Your task to perform on an android device: turn off location Image 0: 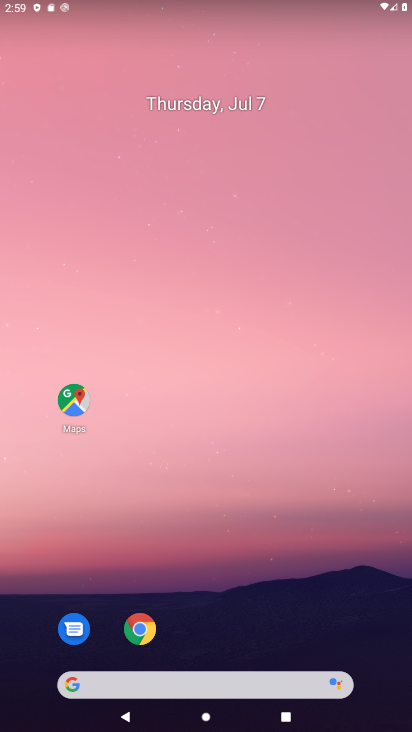
Step 0: drag from (302, 616) to (295, 300)
Your task to perform on an android device: turn off location Image 1: 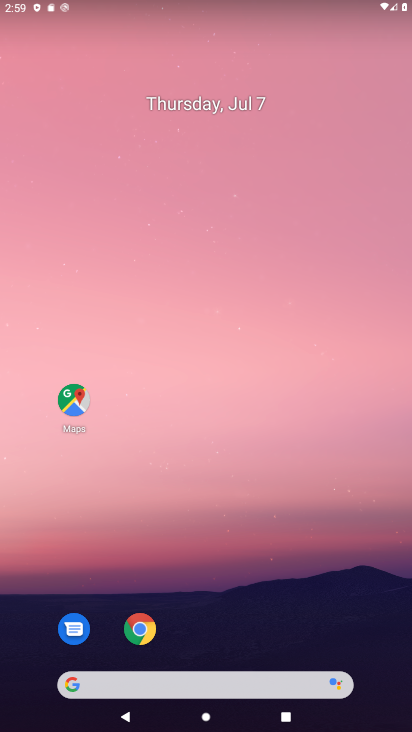
Step 1: drag from (218, 602) to (301, 215)
Your task to perform on an android device: turn off location Image 2: 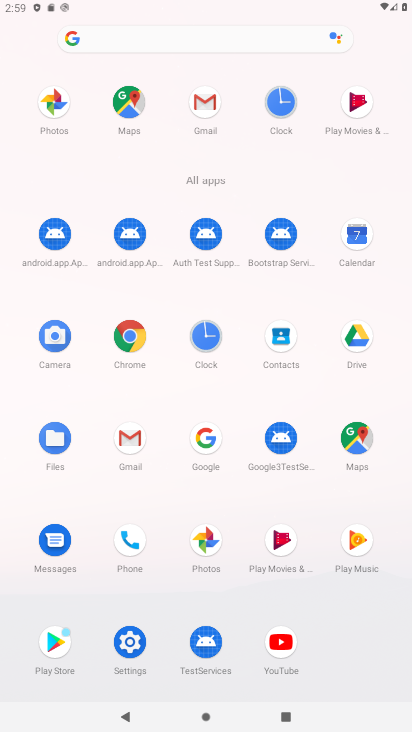
Step 2: click (136, 634)
Your task to perform on an android device: turn off location Image 3: 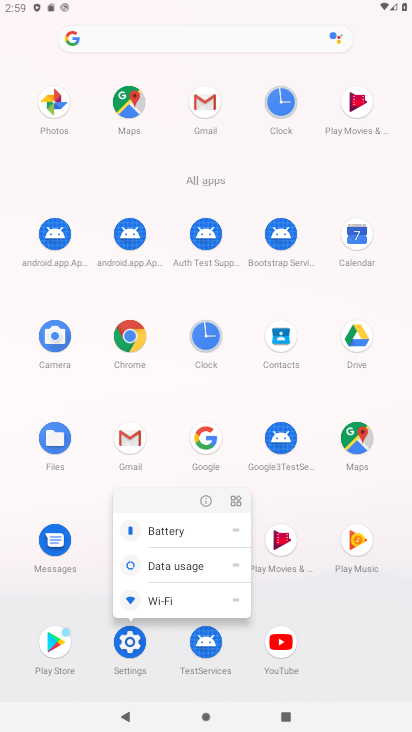
Step 3: click (126, 635)
Your task to perform on an android device: turn off location Image 4: 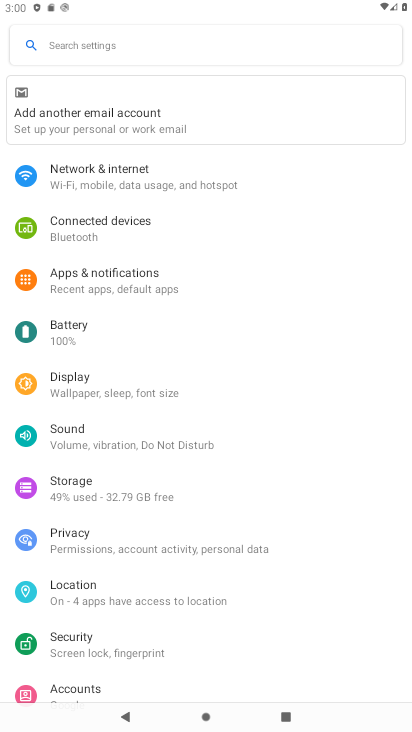
Step 4: click (132, 592)
Your task to perform on an android device: turn off location Image 5: 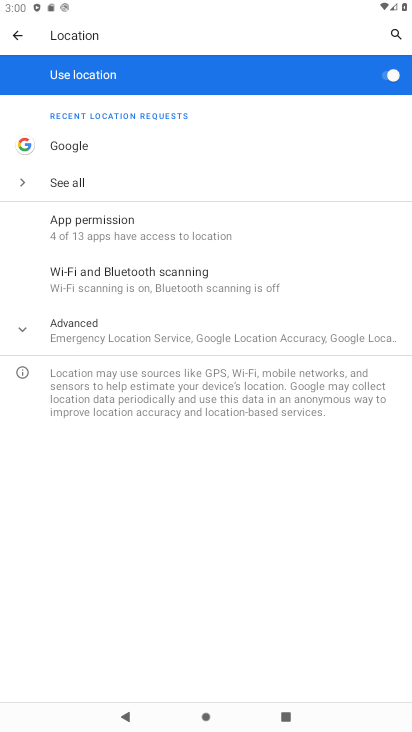
Step 5: click (380, 80)
Your task to perform on an android device: turn off location Image 6: 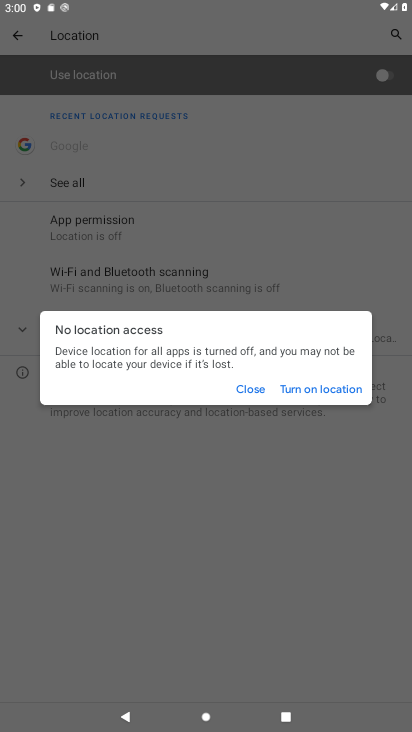
Step 6: click (243, 394)
Your task to perform on an android device: turn off location Image 7: 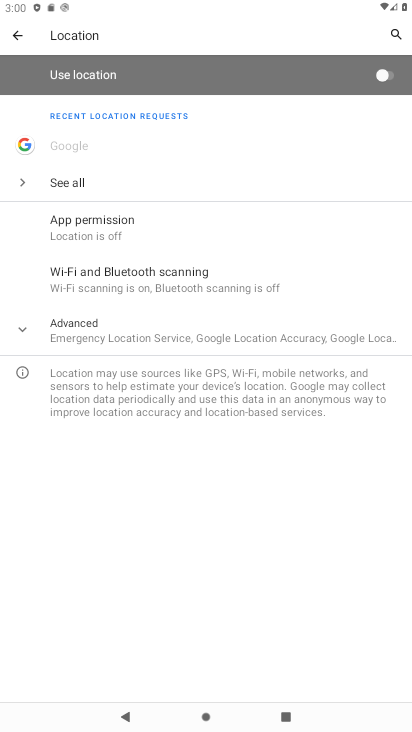
Step 7: task complete